Your task to perform on an android device: delete location history Image 0: 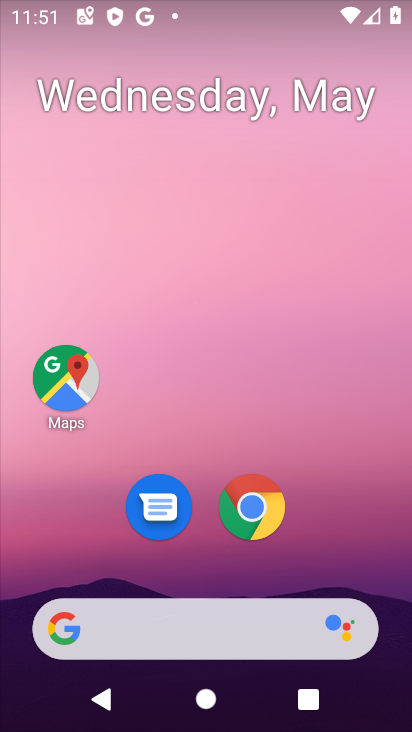
Step 0: press home button
Your task to perform on an android device: delete location history Image 1: 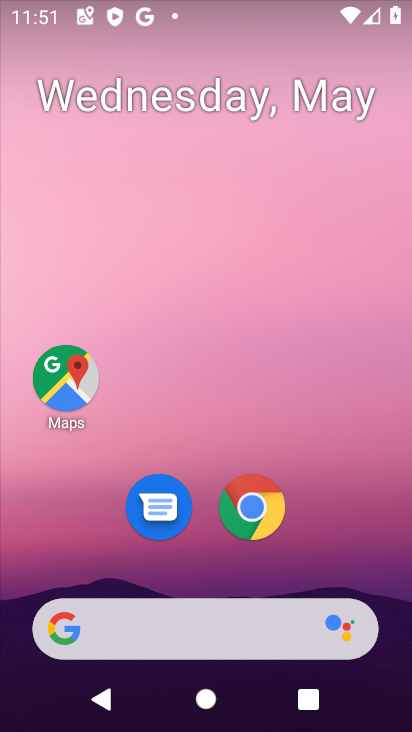
Step 1: click (42, 394)
Your task to perform on an android device: delete location history Image 2: 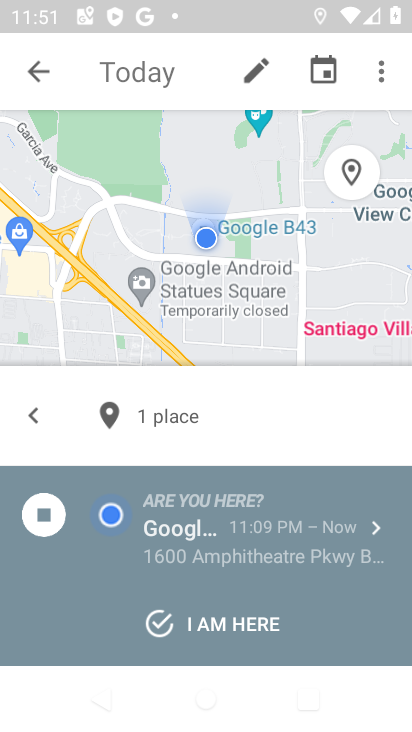
Step 2: drag from (383, 70) to (243, 468)
Your task to perform on an android device: delete location history Image 3: 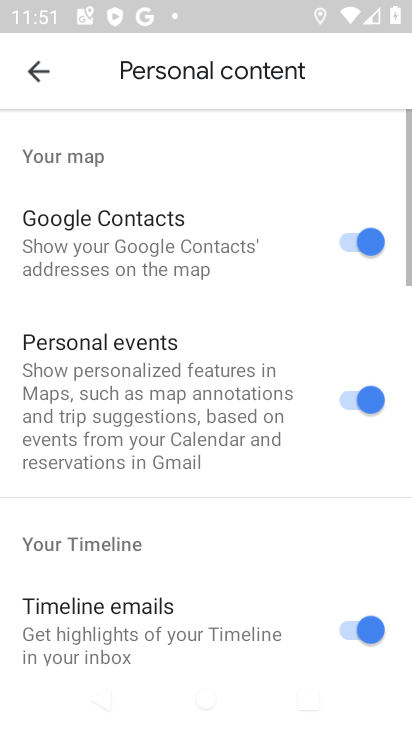
Step 3: drag from (269, 667) to (221, 180)
Your task to perform on an android device: delete location history Image 4: 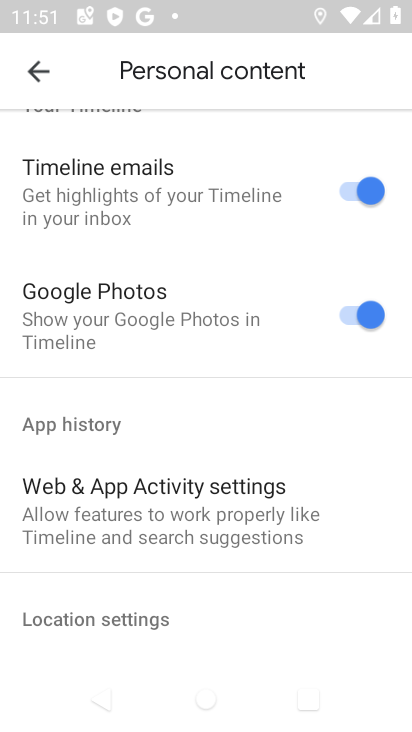
Step 4: drag from (170, 639) to (154, 245)
Your task to perform on an android device: delete location history Image 5: 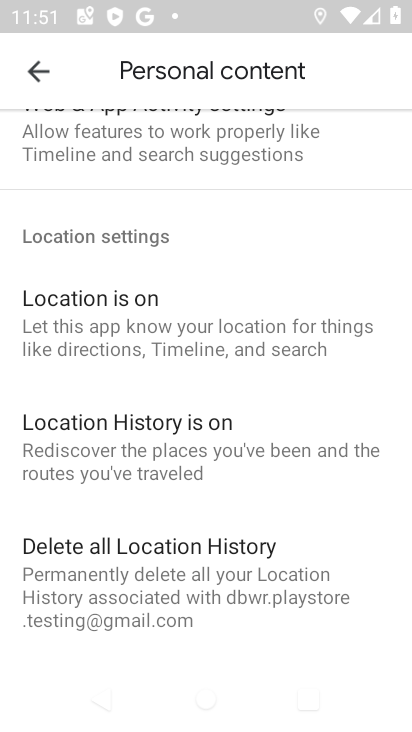
Step 5: click (89, 554)
Your task to perform on an android device: delete location history Image 6: 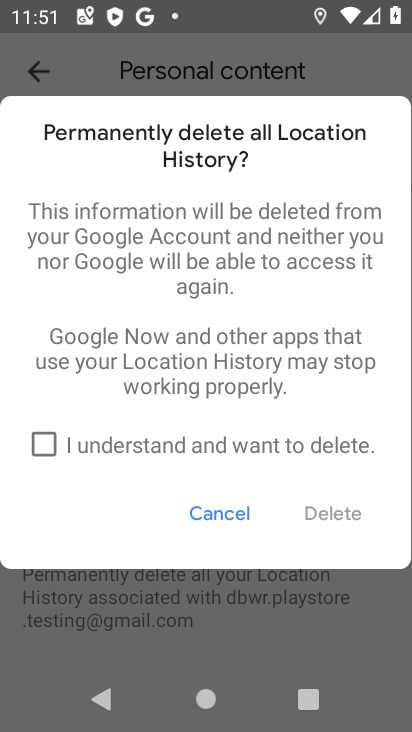
Step 6: click (132, 436)
Your task to perform on an android device: delete location history Image 7: 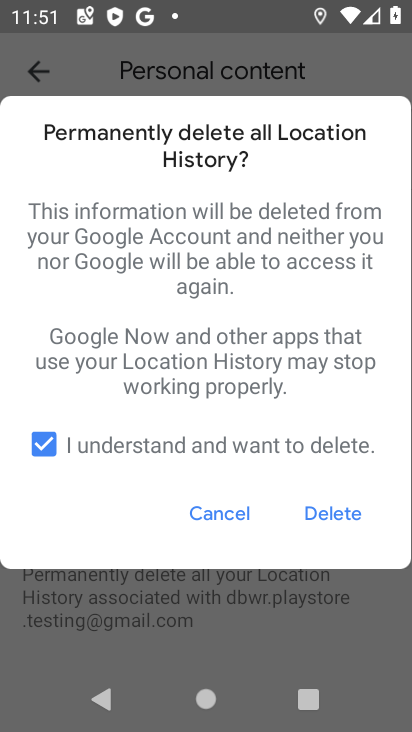
Step 7: click (335, 505)
Your task to perform on an android device: delete location history Image 8: 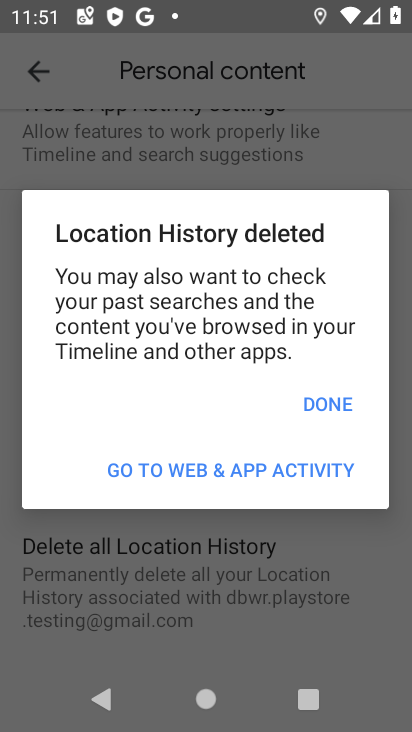
Step 8: click (354, 400)
Your task to perform on an android device: delete location history Image 9: 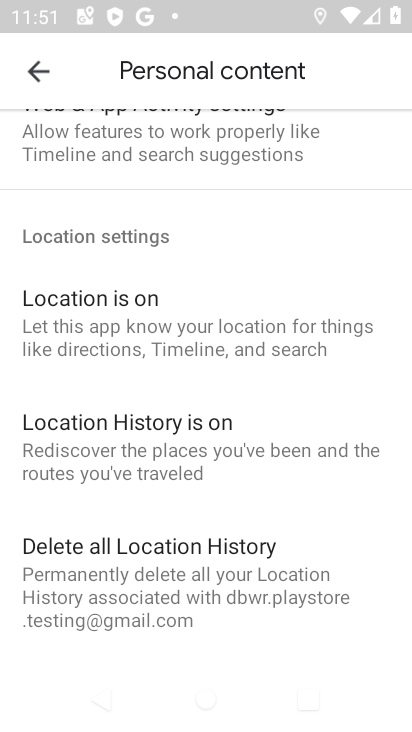
Step 9: task complete